Your task to perform on an android device: Show me productivity apps on the Play Store Image 0: 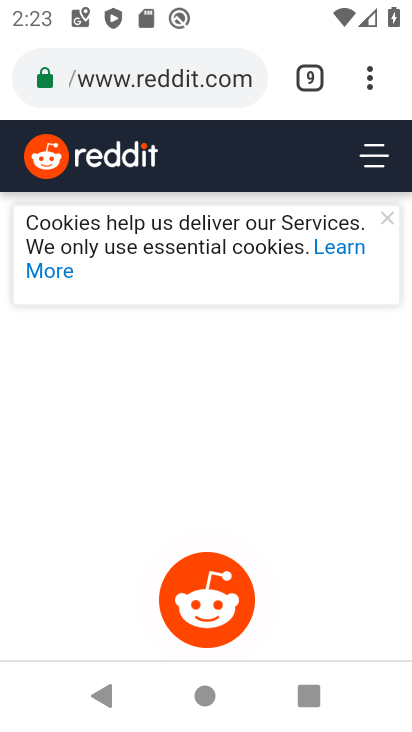
Step 0: press home button
Your task to perform on an android device: Show me productivity apps on the Play Store Image 1: 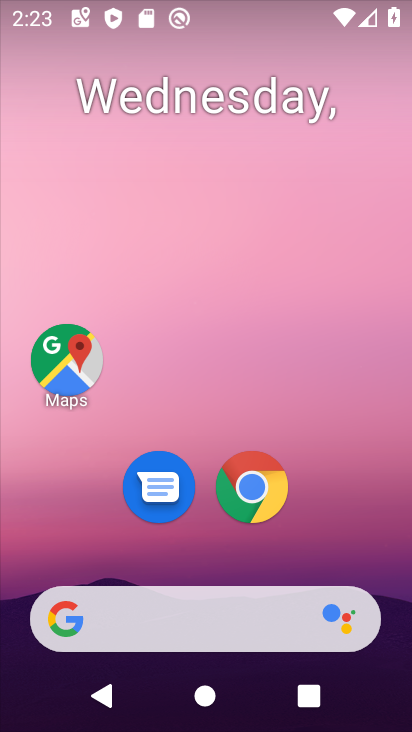
Step 1: drag from (360, 493) to (249, 29)
Your task to perform on an android device: Show me productivity apps on the Play Store Image 2: 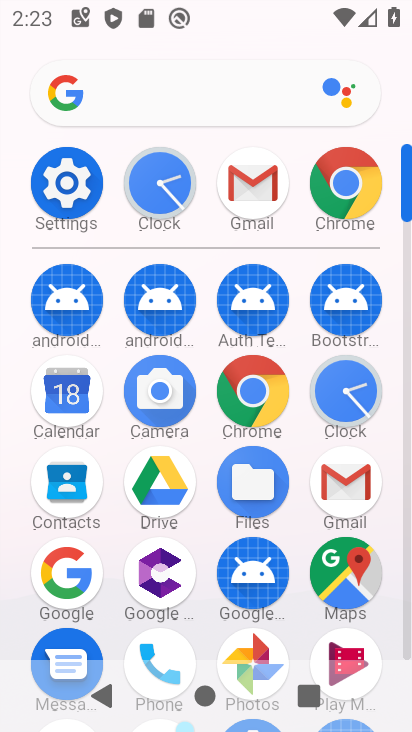
Step 2: drag from (206, 551) to (256, 109)
Your task to perform on an android device: Show me productivity apps on the Play Store Image 3: 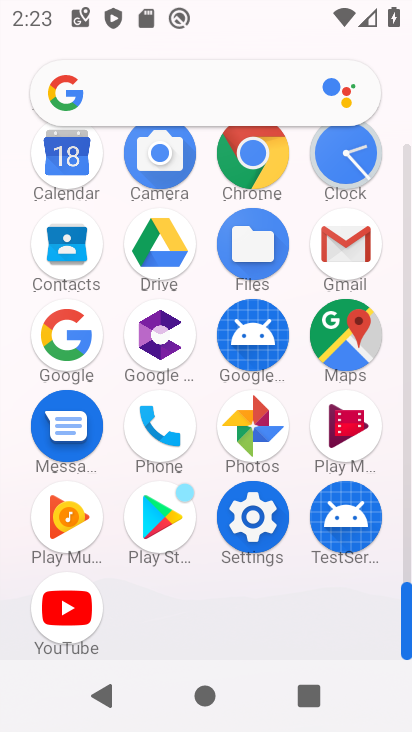
Step 3: click (153, 524)
Your task to perform on an android device: Show me productivity apps on the Play Store Image 4: 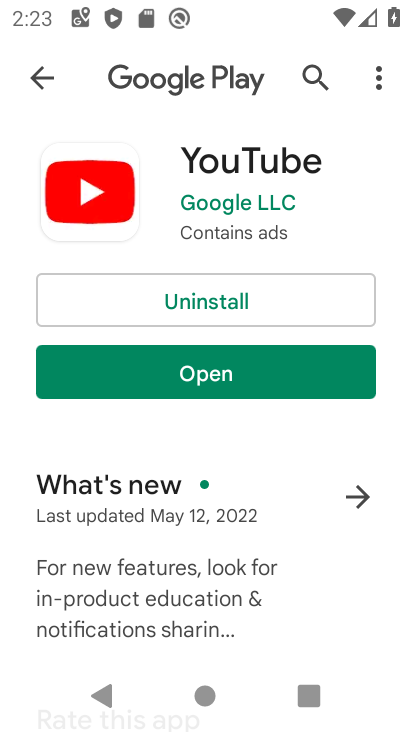
Step 4: click (43, 88)
Your task to perform on an android device: Show me productivity apps on the Play Store Image 5: 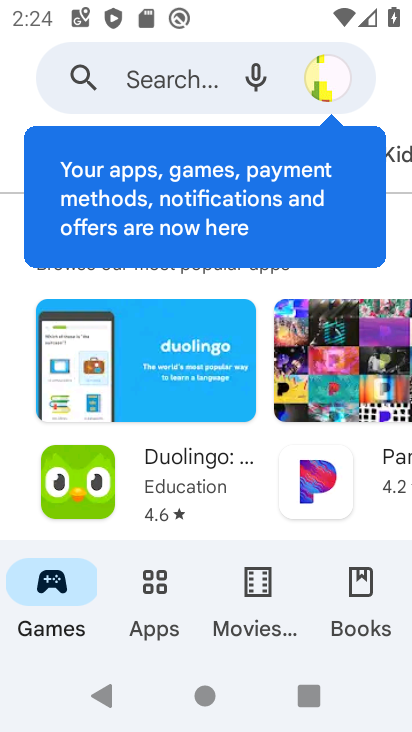
Step 5: click (164, 586)
Your task to perform on an android device: Show me productivity apps on the Play Store Image 6: 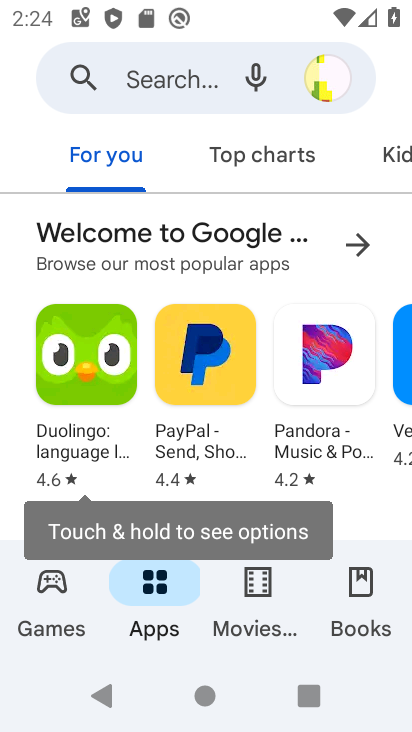
Step 6: task complete